Your task to perform on an android device: Is it going to rain this weekend? Image 0: 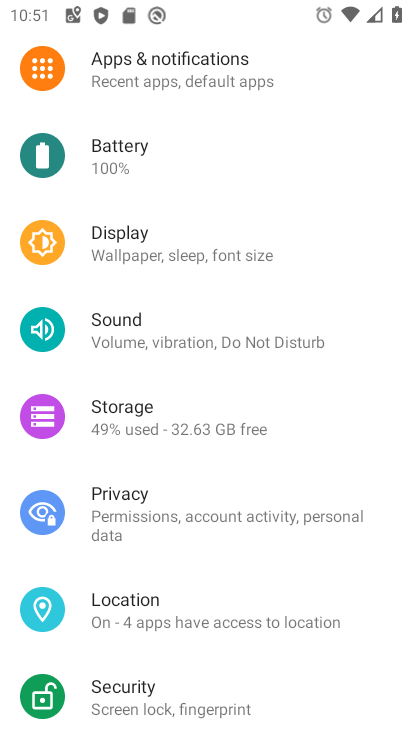
Step 0: press home button
Your task to perform on an android device: Is it going to rain this weekend? Image 1: 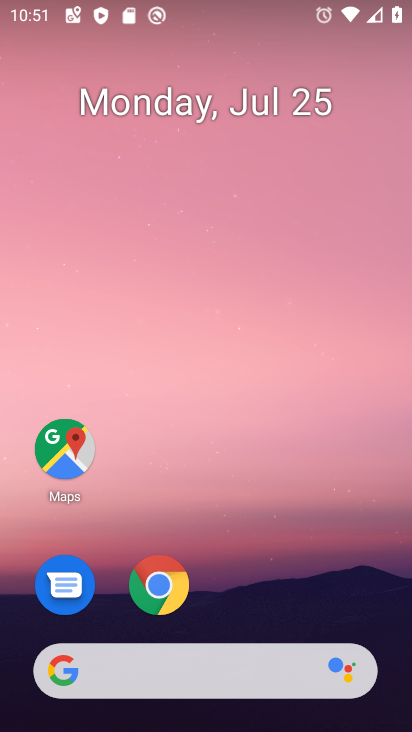
Step 1: drag from (223, 630) to (341, 22)
Your task to perform on an android device: Is it going to rain this weekend? Image 2: 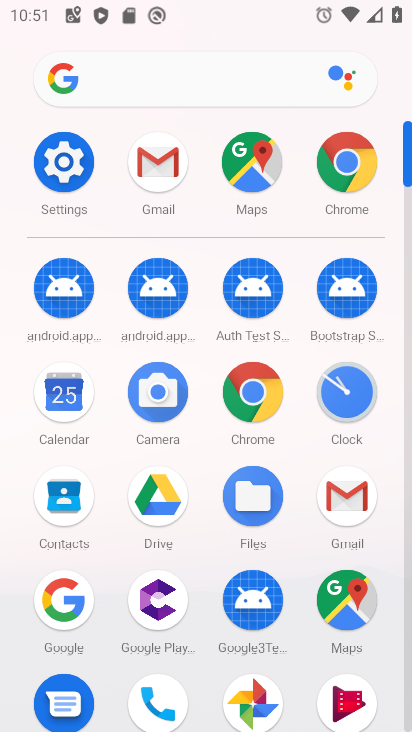
Step 2: click (54, 608)
Your task to perform on an android device: Is it going to rain this weekend? Image 3: 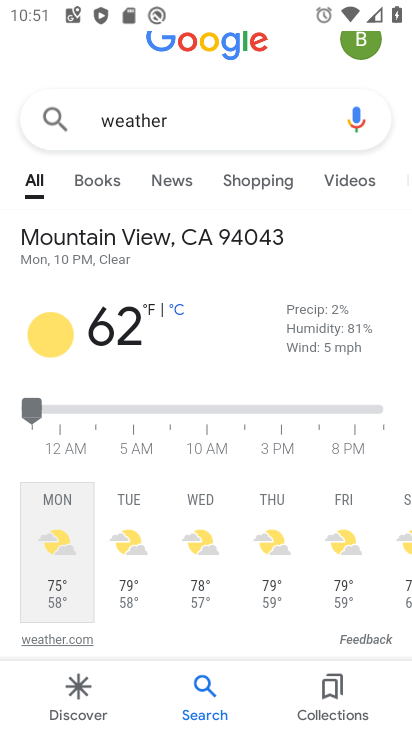
Step 3: task complete